Your task to perform on an android device: turn off smart reply in the gmail app Image 0: 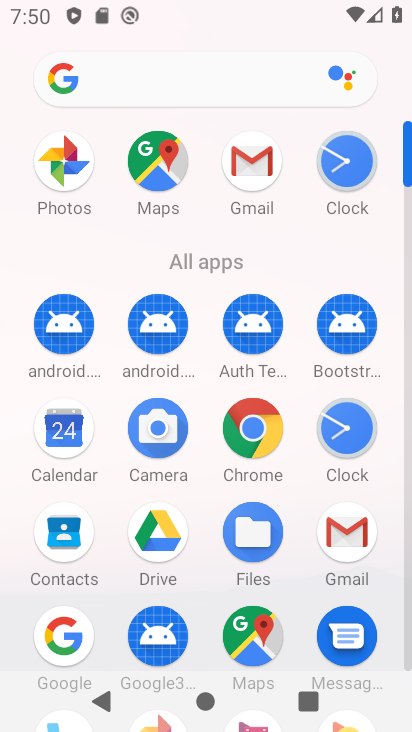
Step 0: press home button
Your task to perform on an android device: turn off smart reply in the gmail app Image 1: 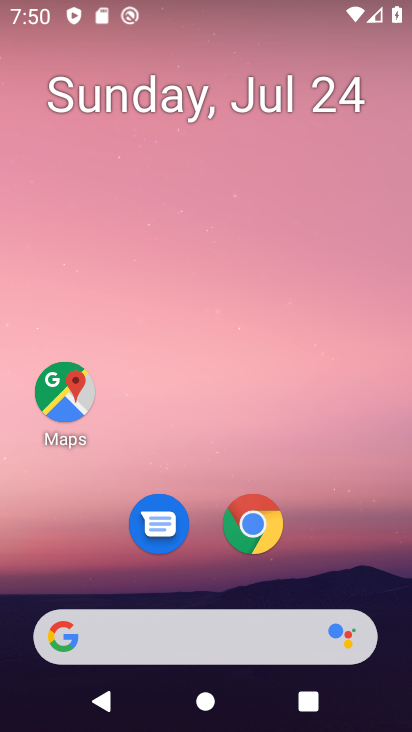
Step 1: drag from (163, 605) to (250, 96)
Your task to perform on an android device: turn off smart reply in the gmail app Image 2: 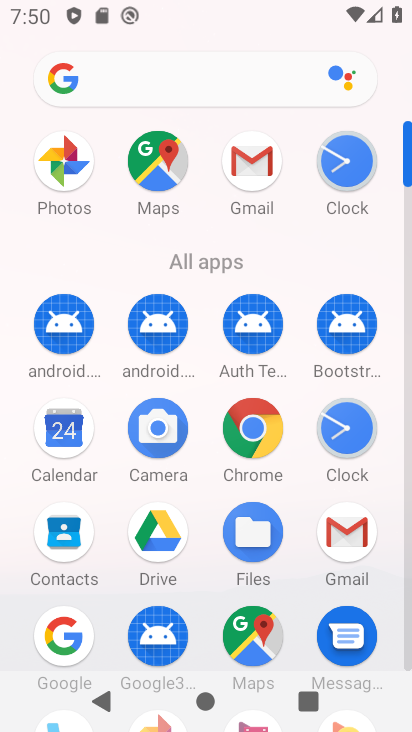
Step 2: click (257, 171)
Your task to perform on an android device: turn off smart reply in the gmail app Image 3: 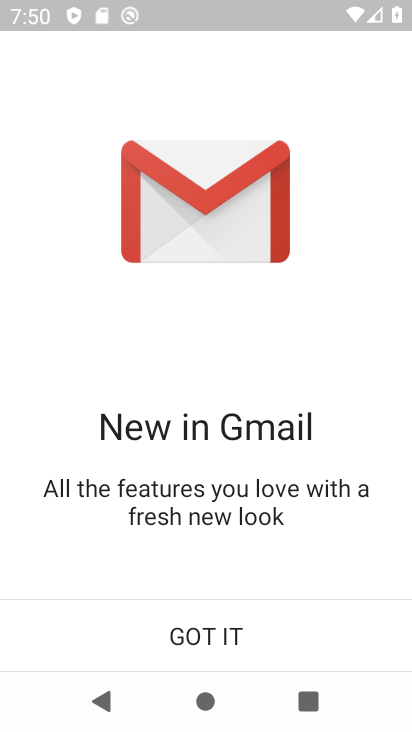
Step 3: click (184, 616)
Your task to perform on an android device: turn off smart reply in the gmail app Image 4: 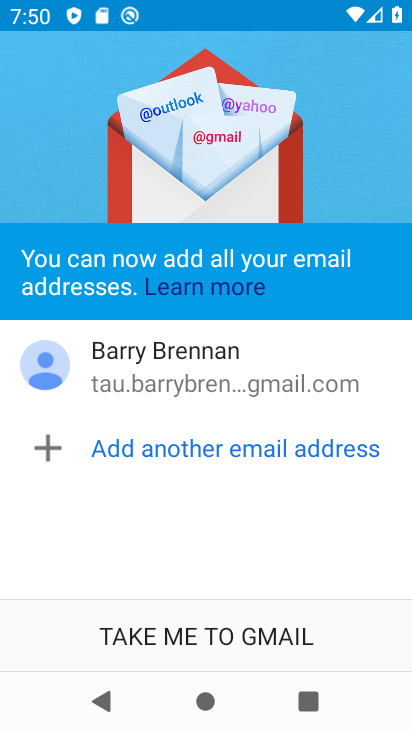
Step 4: click (212, 624)
Your task to perform on an android device: turn off smart reply in the gmail app Image 5: 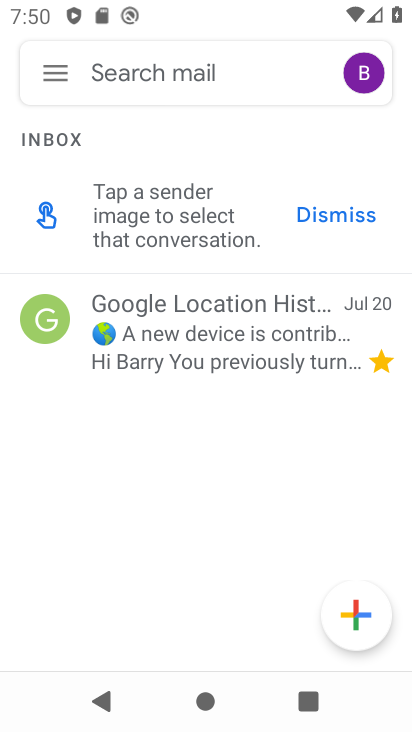
Step 5: click (57, 77)
Your task to perform on an android device: turn off smart reply in the gmail app Image 6: 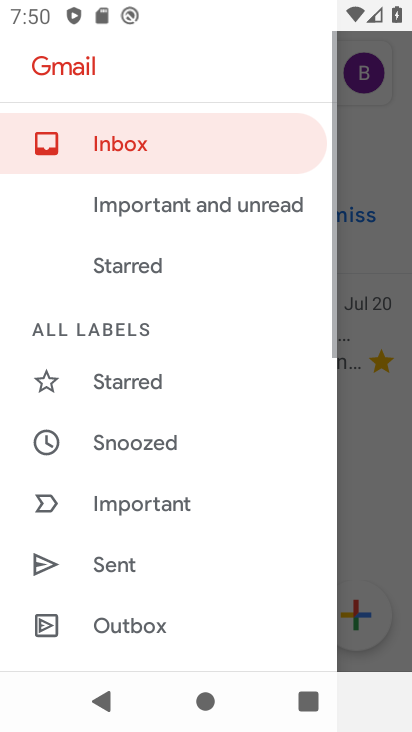
Step 6: drag from (204, 620) to (275, 120)
Your task to perform on an android device: turn off smart reply in the gmail app Image 7: 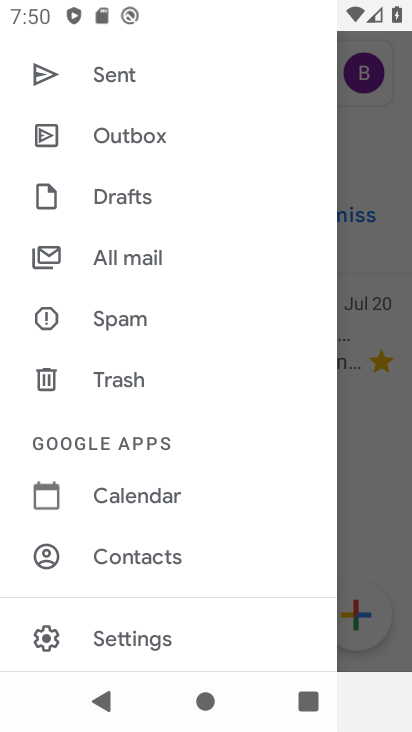
Step 7: drag from (207, 562) to (273, 174)
Your task to perform on an android device: turn off smart reply in the gmail app Image 8: 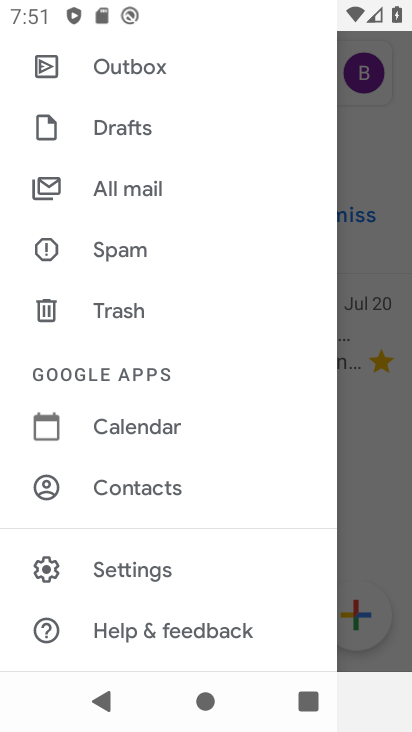
Step 8: click (137, 571)
Your task to perform on an android device: turn off smart reply in the gmail app Image 9: 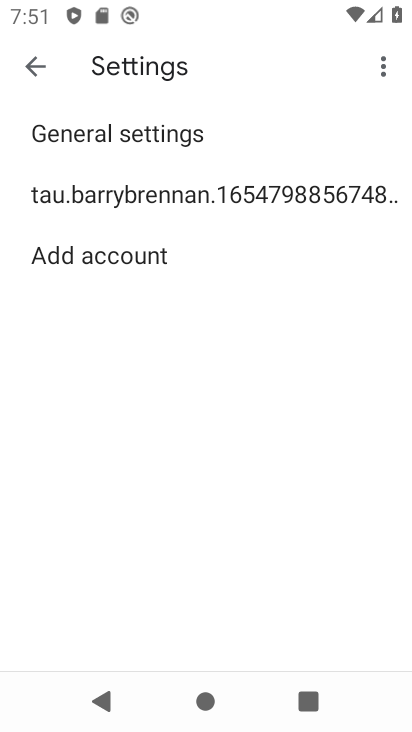
Step 9: click (251, 200)
Your task to perform on an android device: turn off smart reply in the gmail app Image 10: 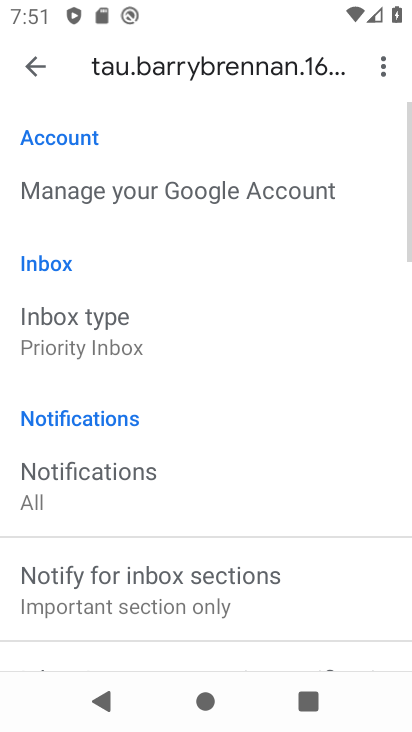
Step 10: drag from (256, 614) to (309, 222)
Your task to perform on an android device: turn off smart reply in the gmail app Image 11: 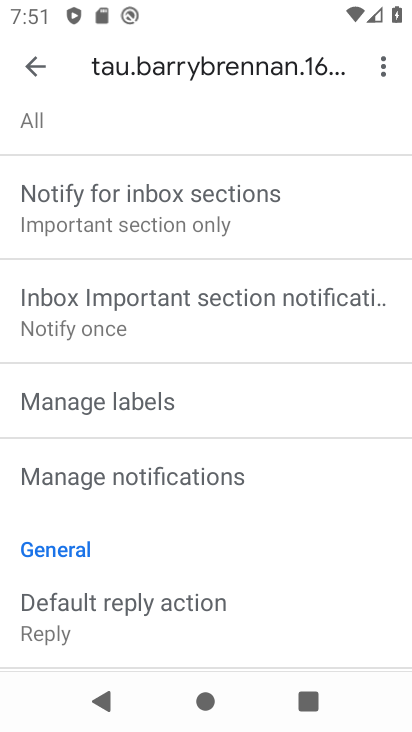
Step 11: drag from (240, 589) to (305, 185)
Your task to perform on an android device: turn off smart reply in the gmail app Image 12: 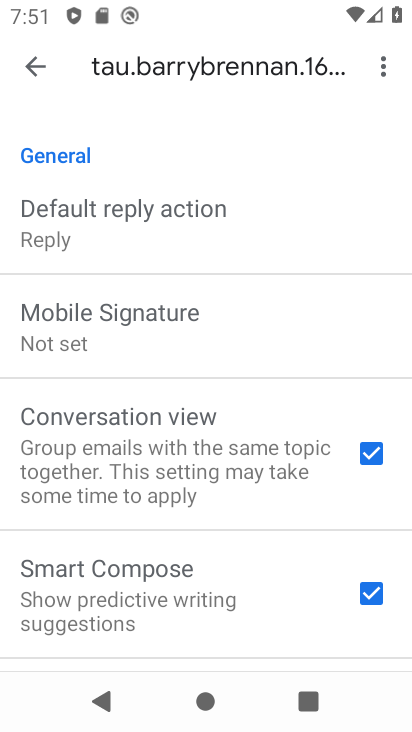
Step 12: drag from (226, 534) to (308, 183)
Your task to perform on an android device: turn off smart reply in the gmail app Image 13: 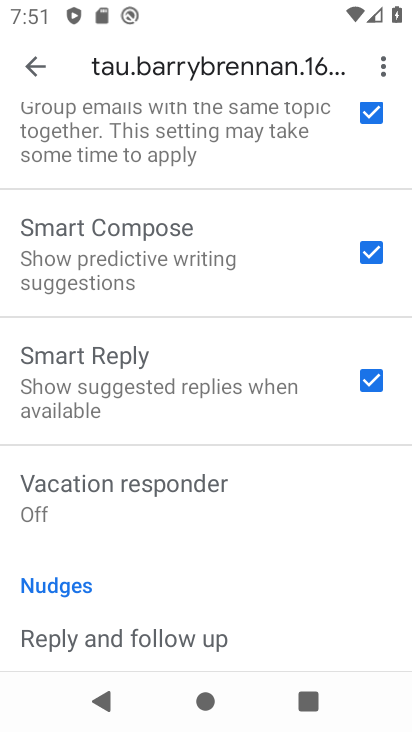
Step 13: click (372, 386)
Your task to perform on an android device: turn off smart reply in the gmail app Image 14: 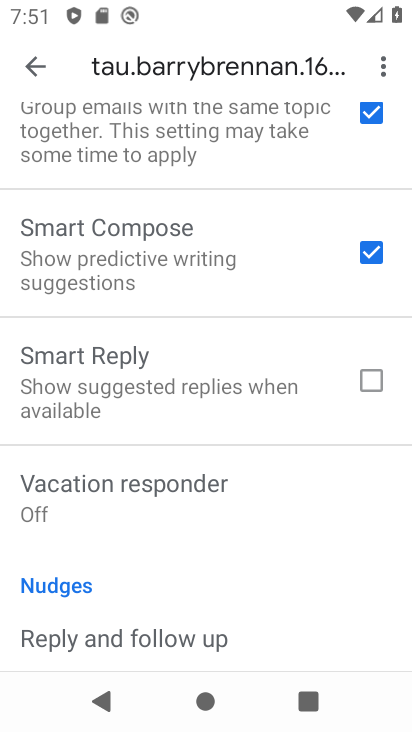
Step 14: task complete